Your task to perform on an android device: turn smart compose on in the gmail app Image 0: 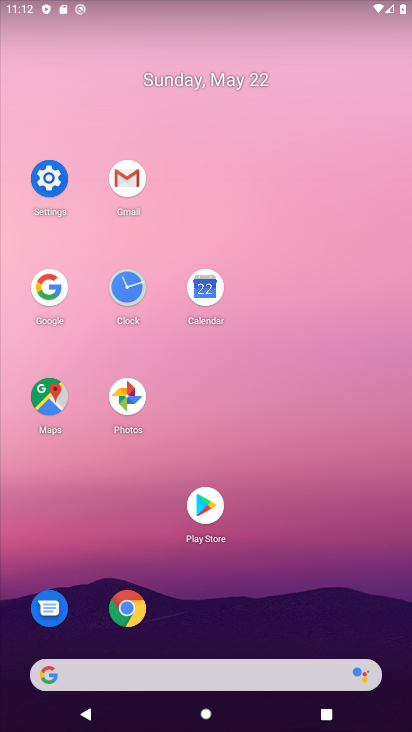
Step 0: click (134, 190)
Your task to perform on an android device: turn smart compose on in the gmail app Image 1: 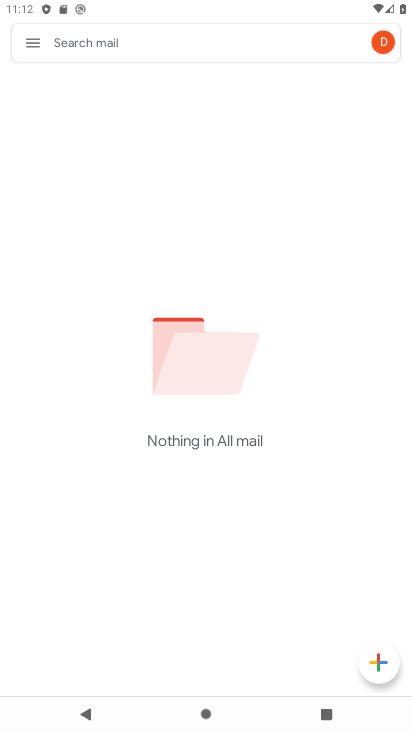
Step 1: click (22, 37)
Your task to perform on an android device: turn smart compose on in the gmail app Image 2: 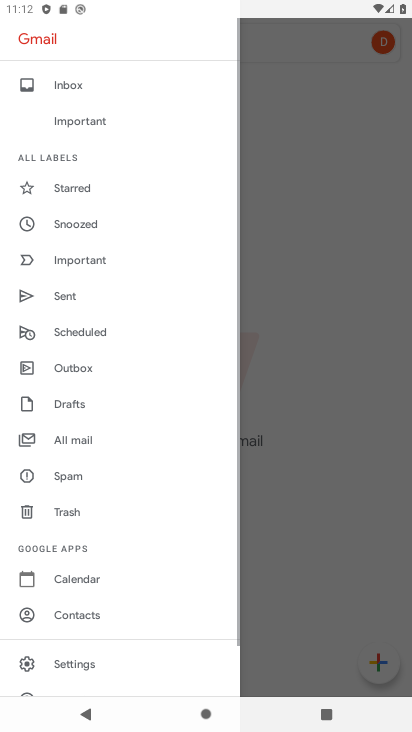
Step 2: drag from (126, 592) to (135, 172)
Your task to perform on an android device: turn smart compose on in the gmail app Image 3: 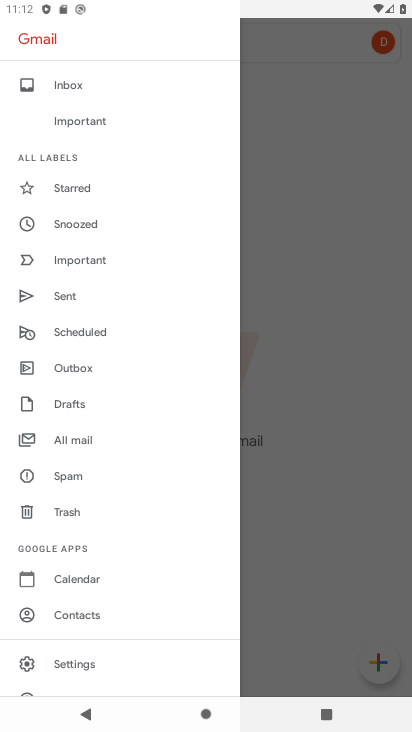
Step 3: click (106, 655)
Your task to perform on an android device: turn smart compose on in the gmail app Image 4: 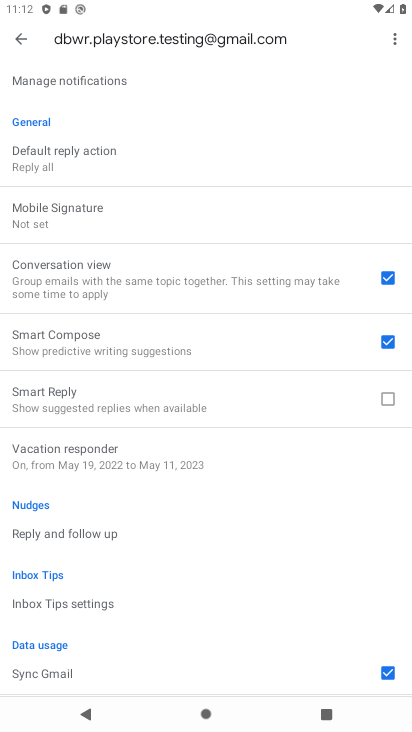
Step 4: task complete